Your task to perform on an android device: What is the news today? Image 0: 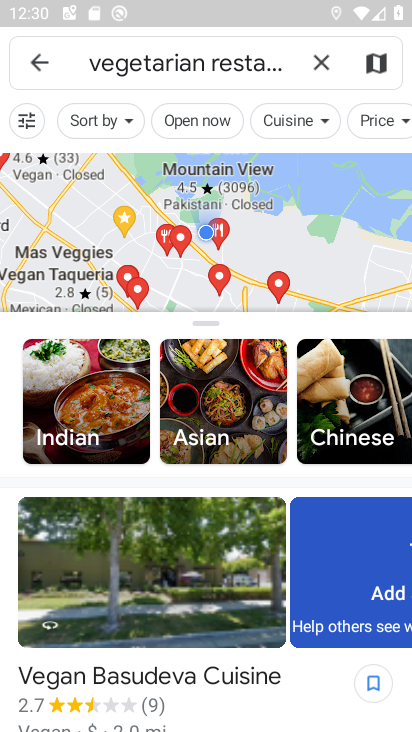
Step 0: press home button
Your task to perform on an android device: What is the news today? Image 1: 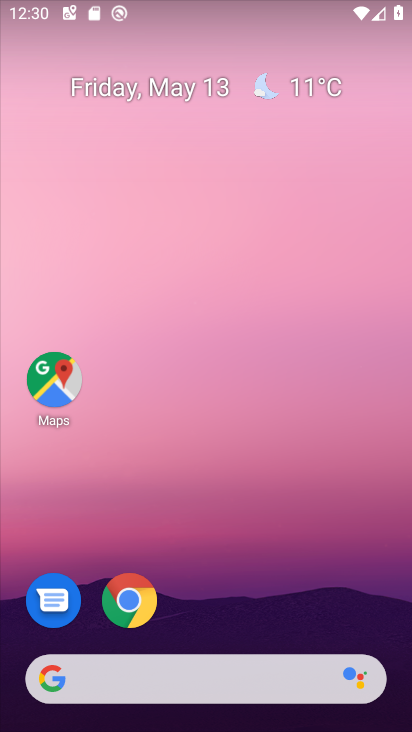
Step 1: click (170, 671)
Your task to perform on an android device: What is the news today? Image 2: 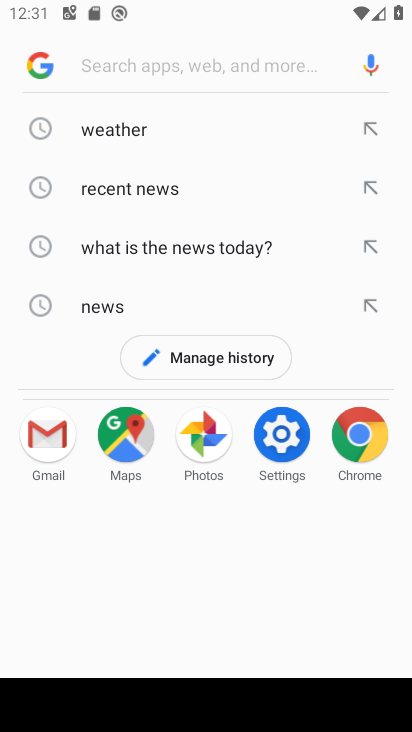
Step 2: click (202, 257)
Your task to perform on an android device: What is the news today? Image 3: 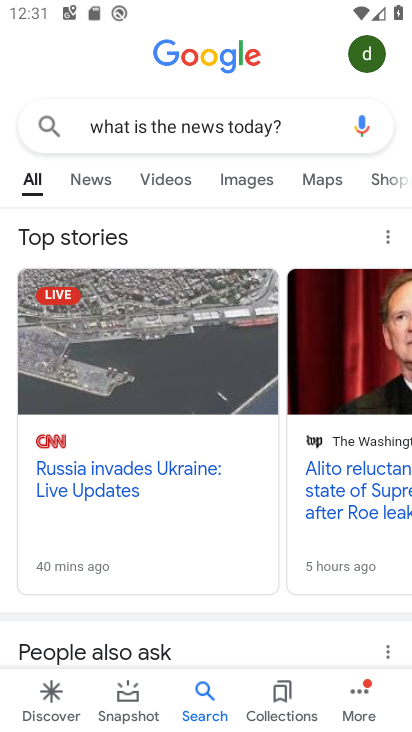
Step 3: task complete